Your task to perform on an android device: turn off location history Image 0: 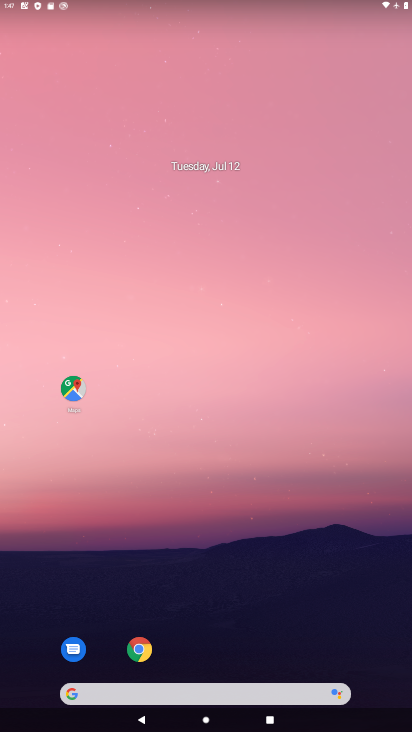
Step 0: drag from (311, 665) to (238, 84)
Your task to perform on an android device: turn off location history Image 1: 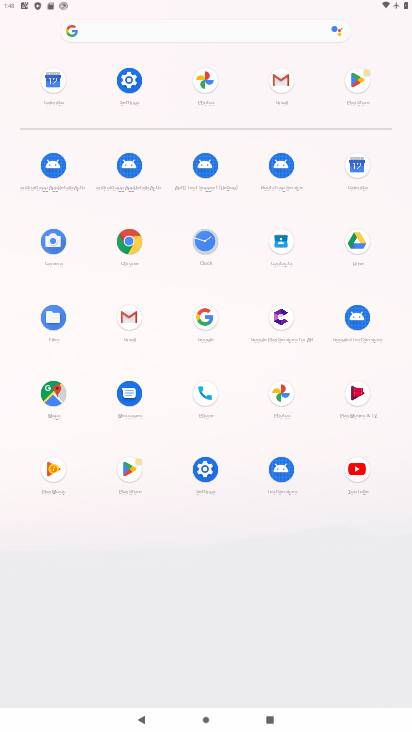
Step 1: click (130, 100)
Your task to perform on an android device: turn off location history Image 2: 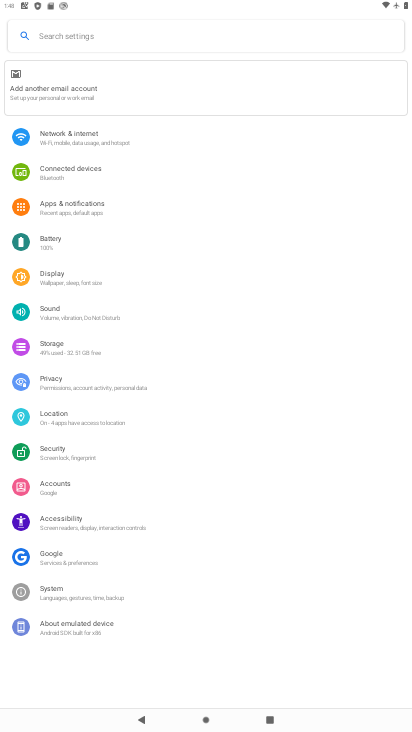
Step 2: click (84, 418)
Your task to perform on an android device: turn off location history Image 3: 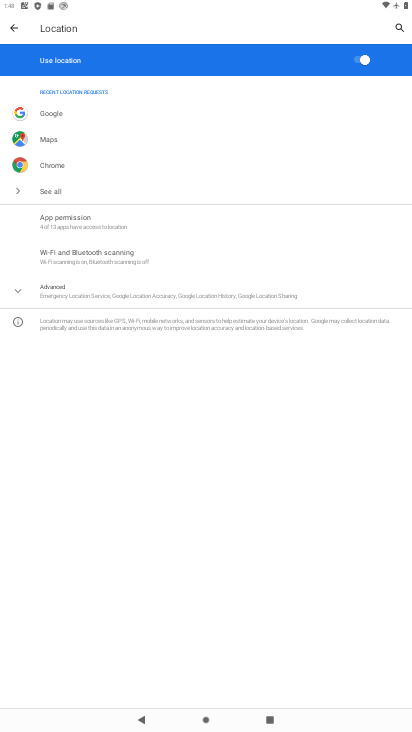
Step 3: click (100, 298)
Your task to perform on an android device: turn off location history Image 4: 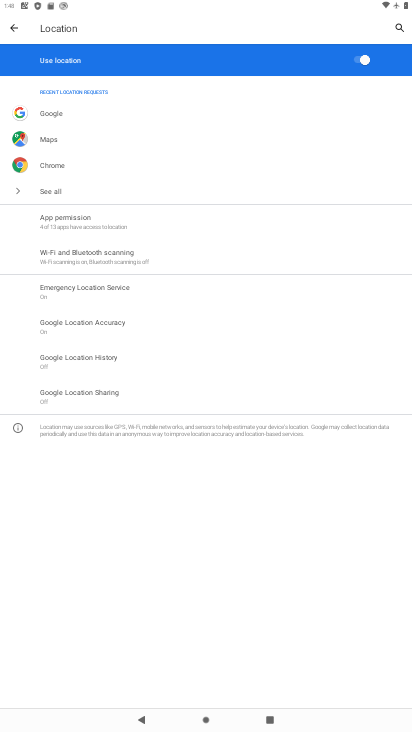
Step 4: click (127, 351)
Your task to perform on an android device: turn off location history Image 5: 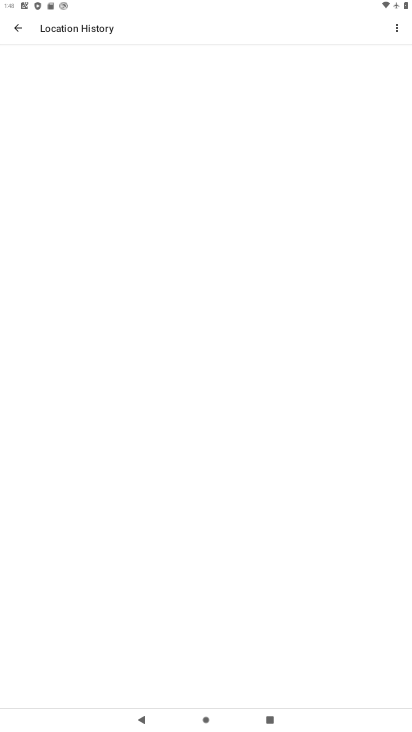
Step 5: task complete